Your task to perform on an android device: snooze an email in the gmail app Image 0: 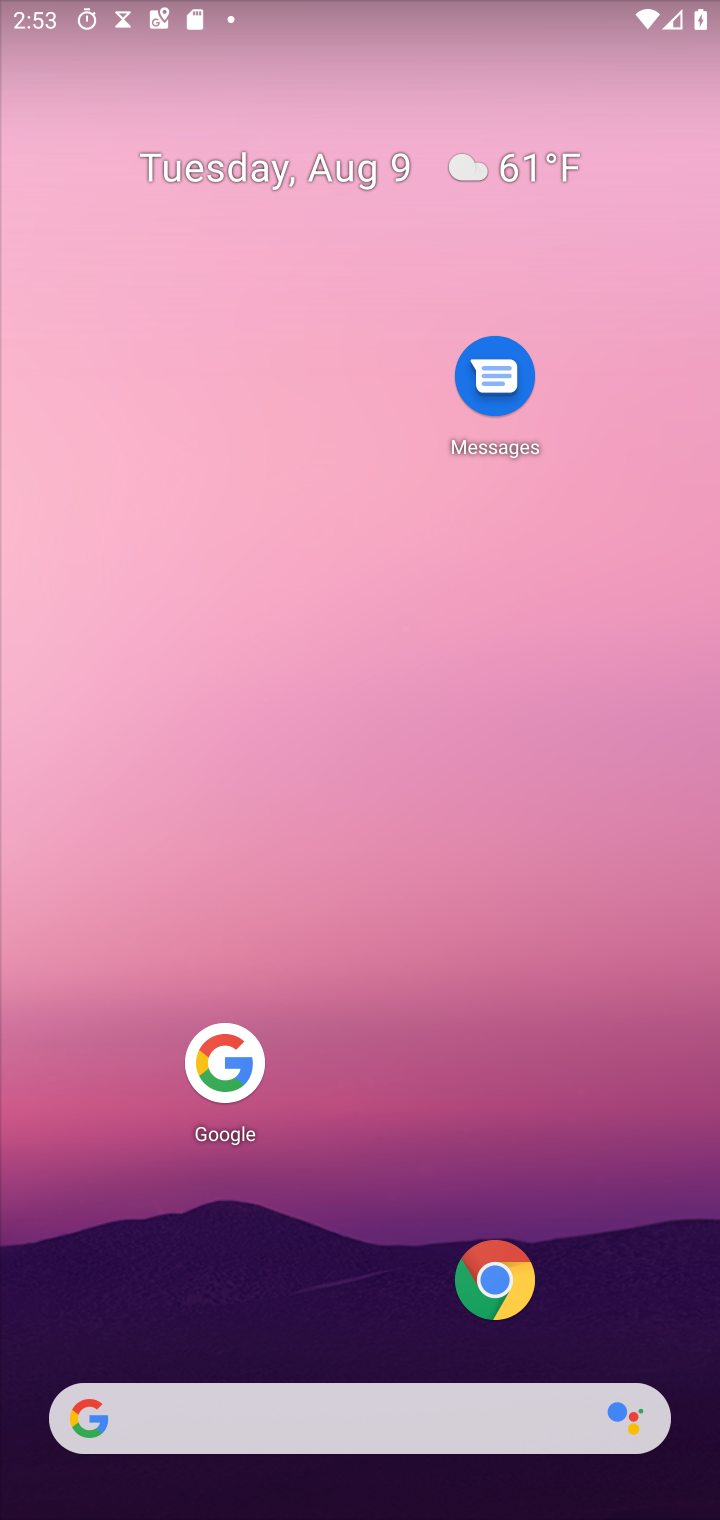
Step 0: drag from (283, 1395) to (342, 299)
Your task to perform on an android device: snooze an email in the gmail app Image 1: 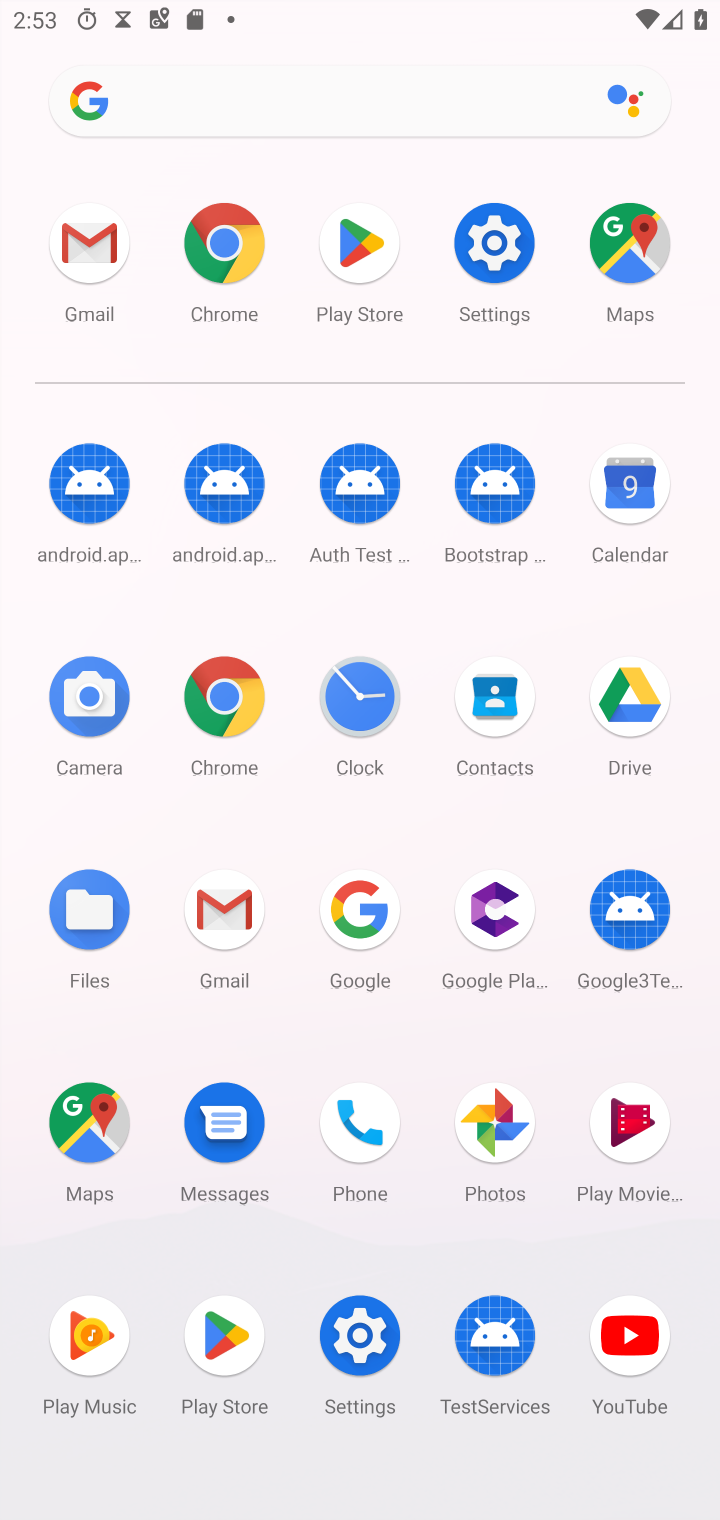
Step 1: click (83, 252)
Your task to perform on an android device: snooze an email in the gmail app Image 2: 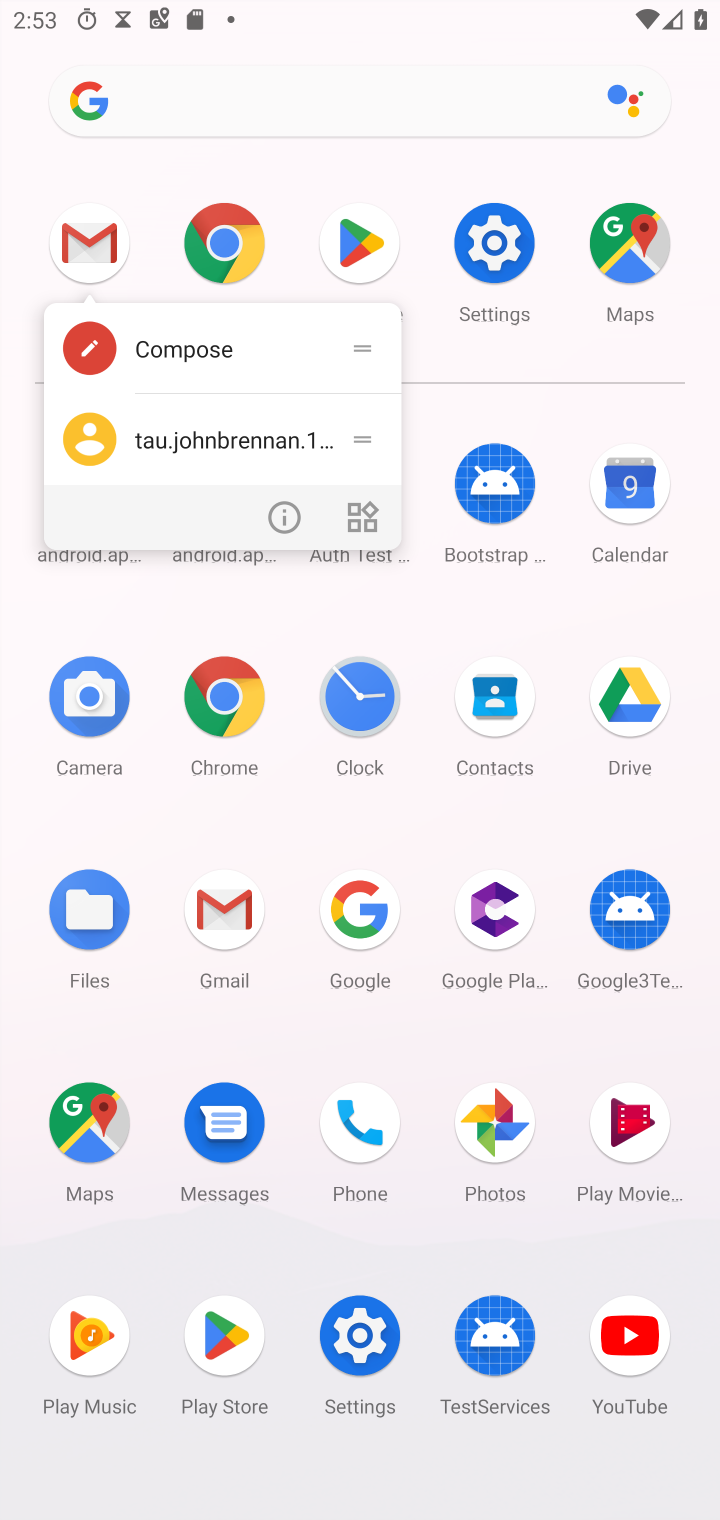
Step 2: click (92, 239)
Your task to perform on an android device: snooze an email in the gmail app Image 3: 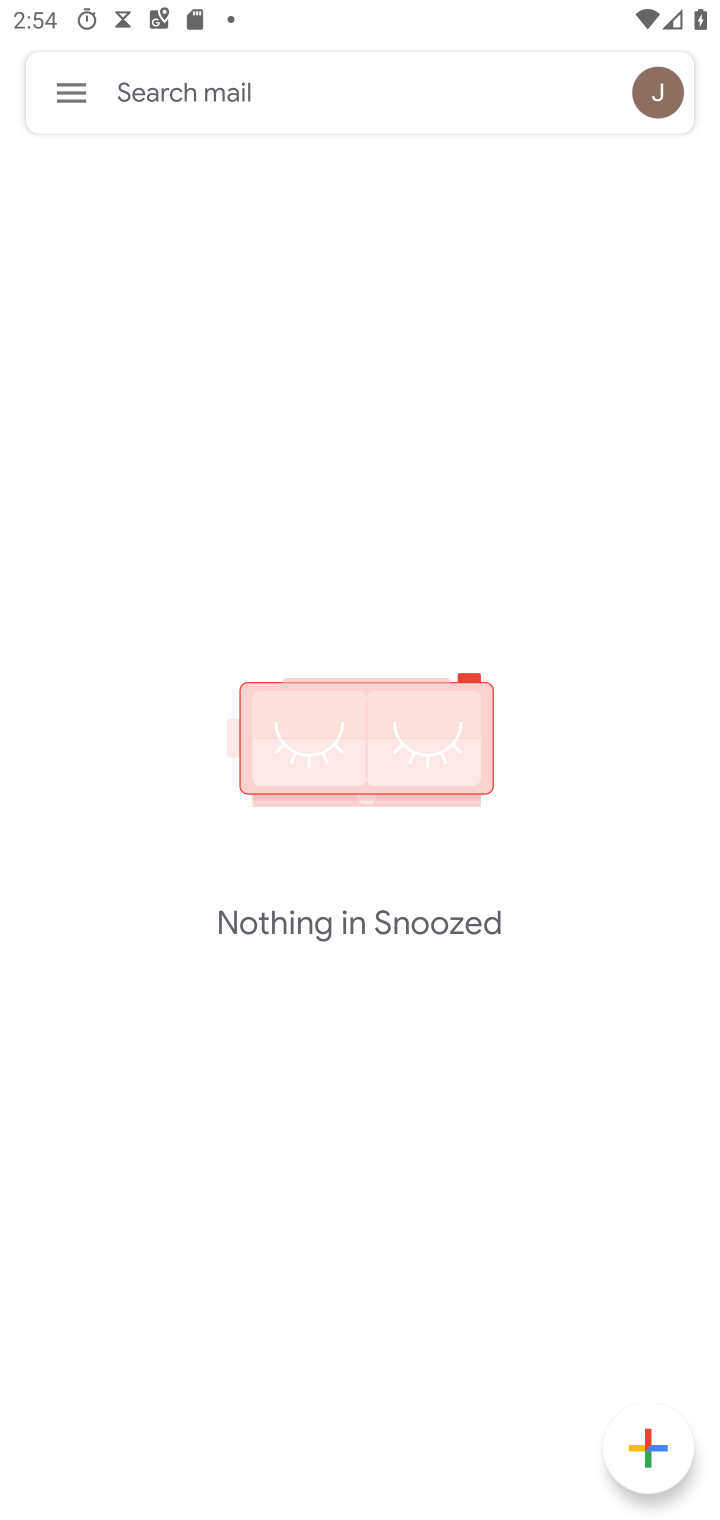
Step 3: click (77, 98)
Your task to perform on an android device: snooze an email in the gmail app Image 4: 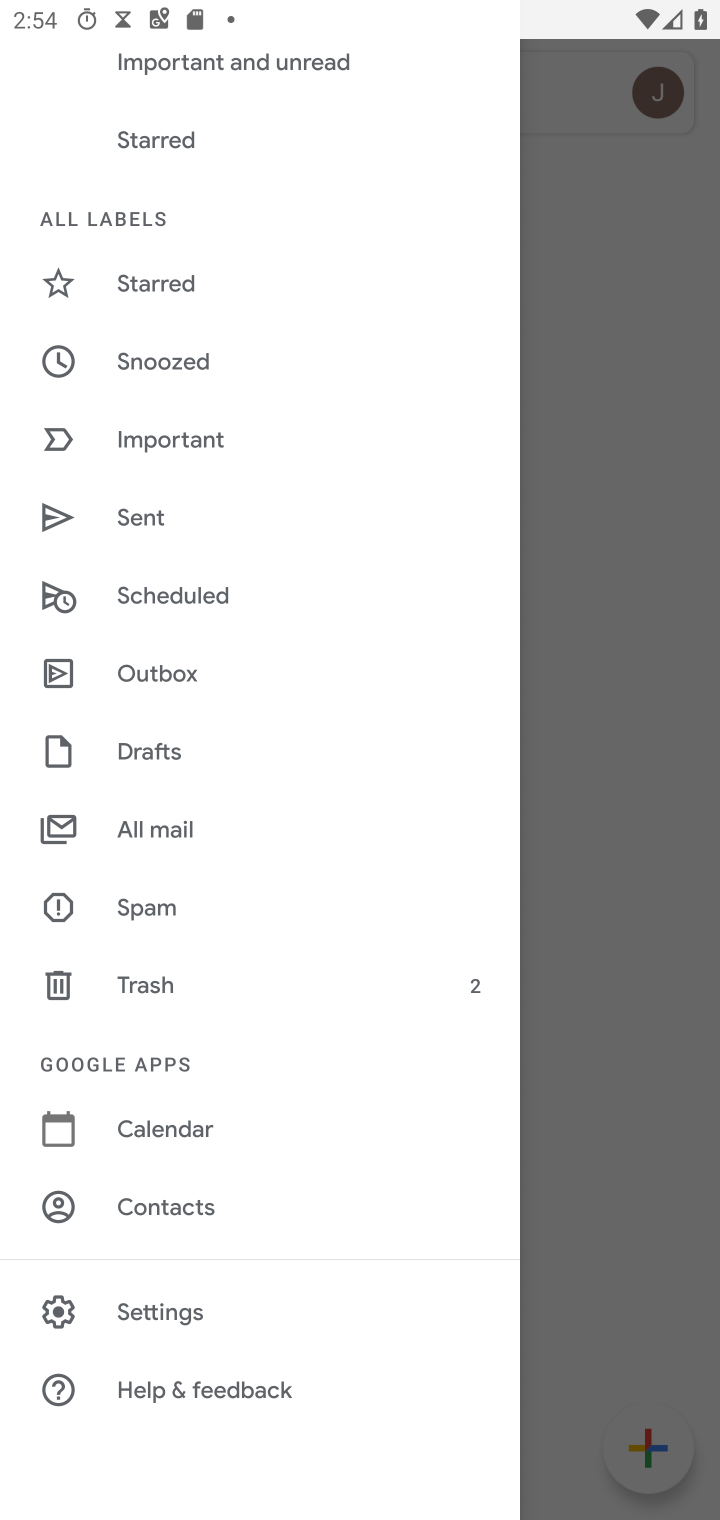
Step 4: click (213, 831)
Your task to perform on an android device: snooze an email in the gmail app Image 5: 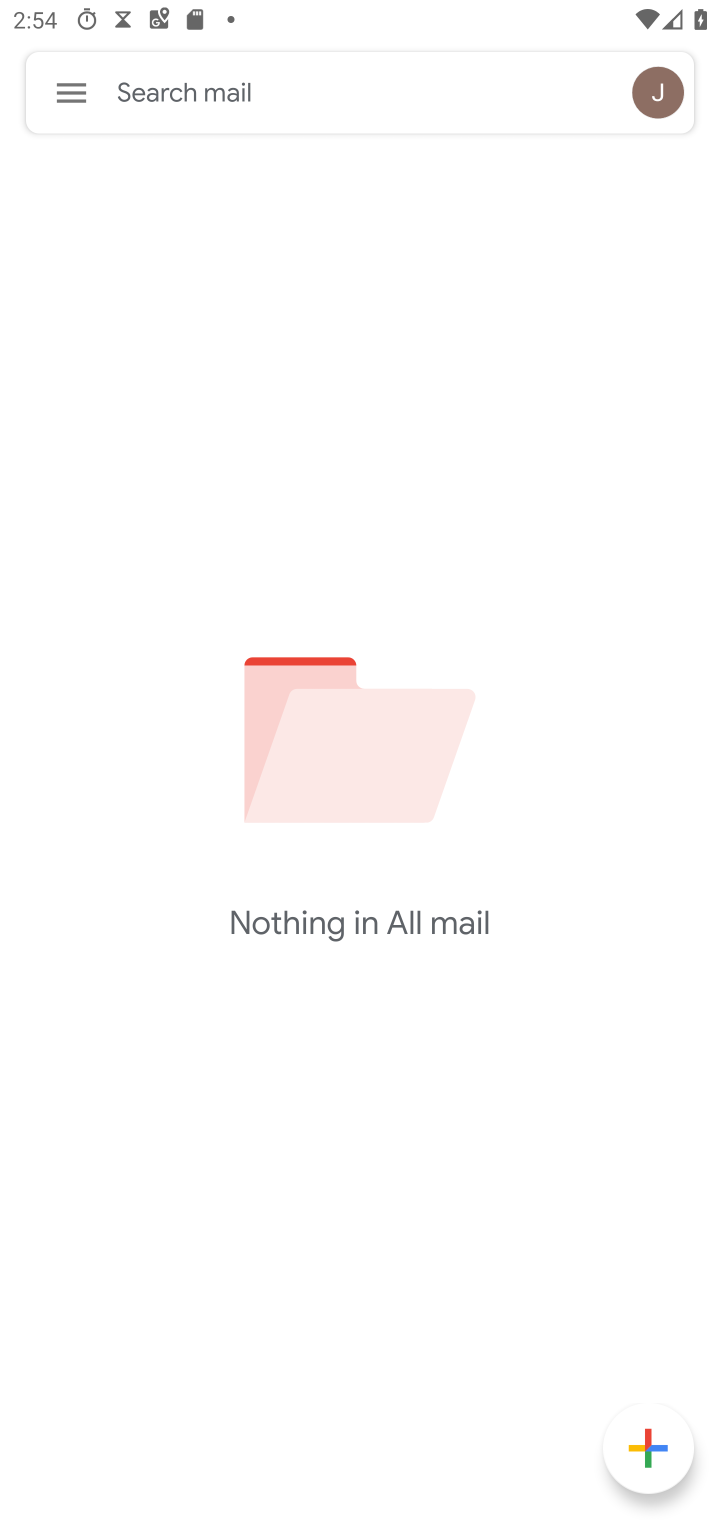
Step 5: task complete